Your task to perform on an android device: open chrome and create a bookmark for the current page Image 0: 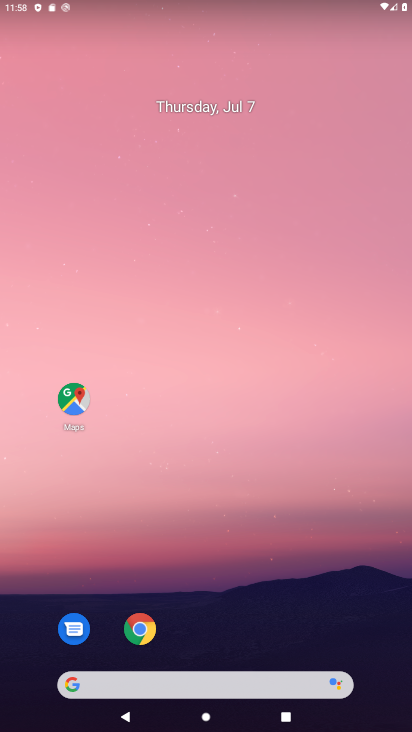
Step 0: click (141, 642)
Your task to perform on an android device: open chrome and create a bookmark for the current page Image 1: 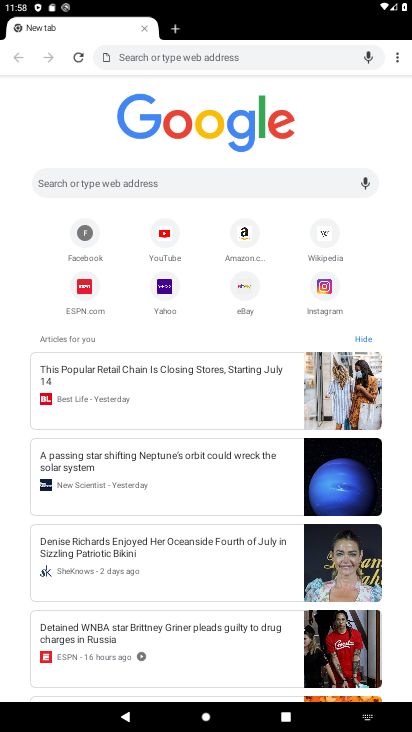
Step 1: drag from (366, 268) to (366, 221)
Your task to perform on an android device: open chrome and create a bookmark for the current page Image 2: 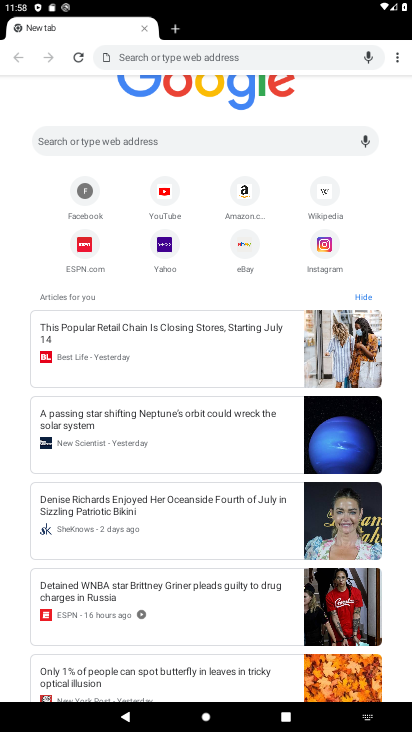
Step 2: click (398, 164)
Your task to perform on an android device: open chrome and create a bookmark for the current page Image 3: 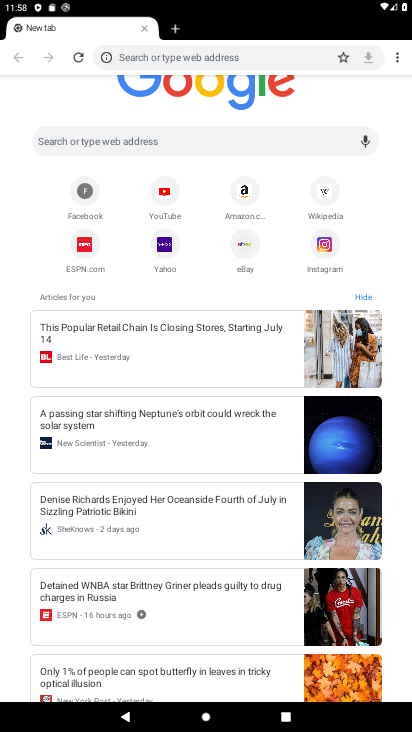
Step 3: click (343, 56)
Your task to perform on an android device: open chrome and create a bookmark for the current page Image 4: 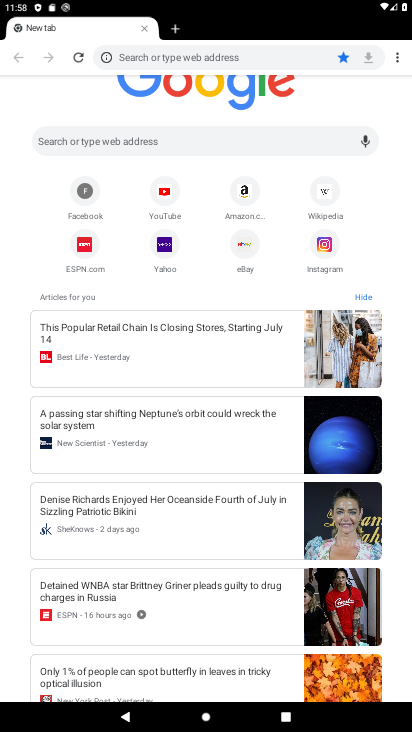
Step 4: task complete